Your task to perform on an android device: open chrome privacy settings Image 0: 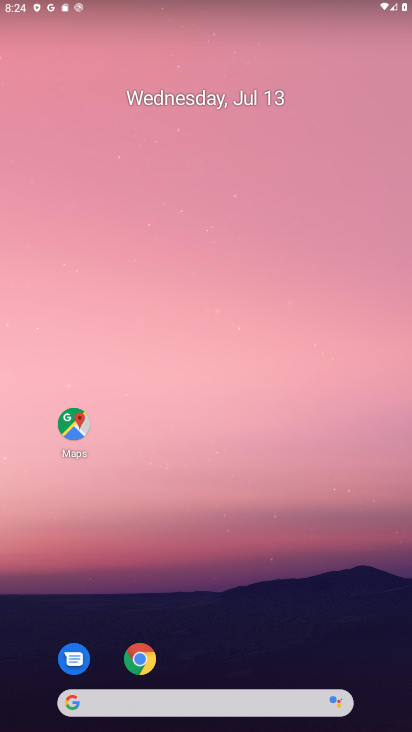
Step 0: click (157, 672)
Your task to perform on an android device: open chrome privacy settings Image 1: 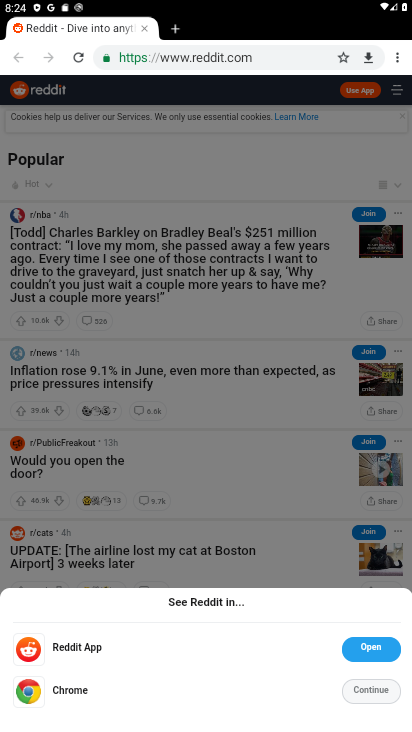
Step 1: click (397, 53)
Your task to perform on an android device: open chrome privacy settings Image 2: 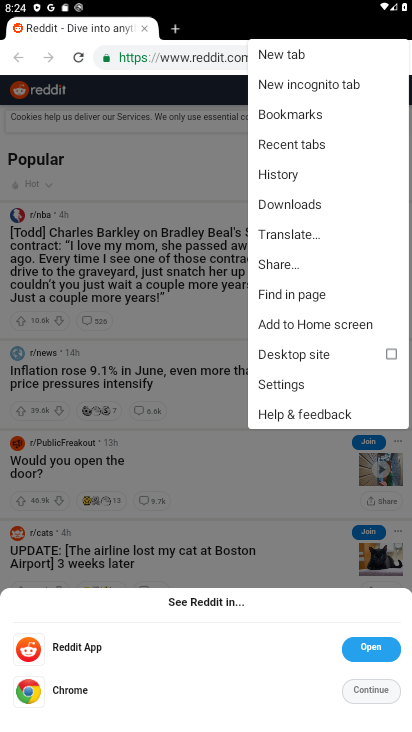
Step 2: click (309, 393)
Your task to perform on an android device: open chrome privacy settings Image 3: 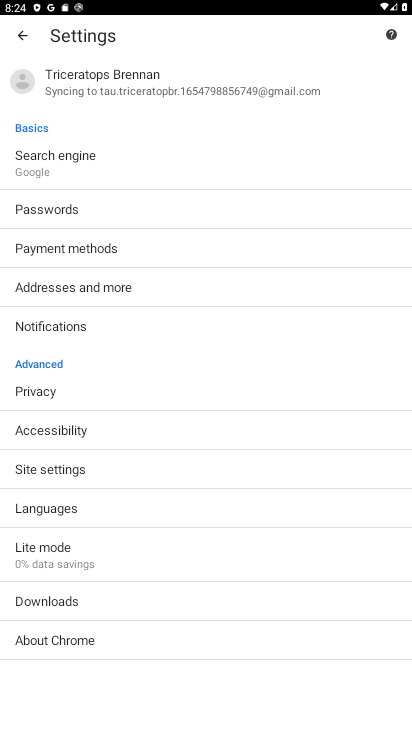
Step 3: click (118, 385)
Your task to perform on an android device: open chrome privacy settings Image 4: 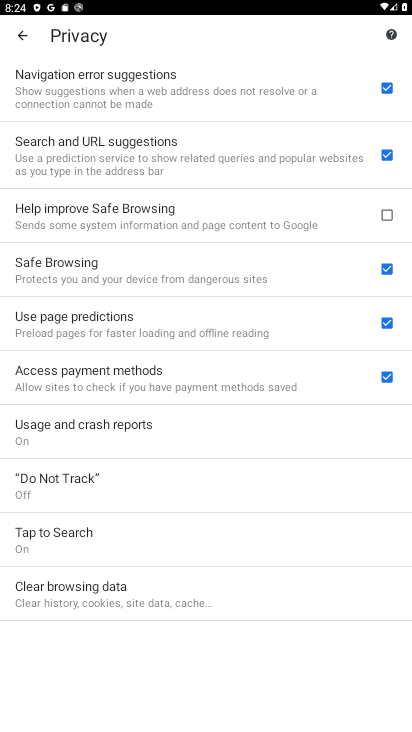
Step 4: task complete